Your task to perform on an android device: toggle show notifications on the lock screen Image 0: 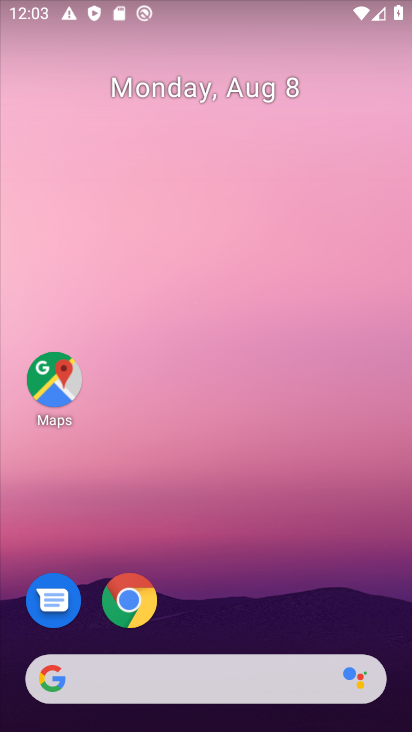
Step 0: drag from (185, 590) to (132, 155)
Your task to perform on an android device: toggle show notifications on the lock screen Image 1: 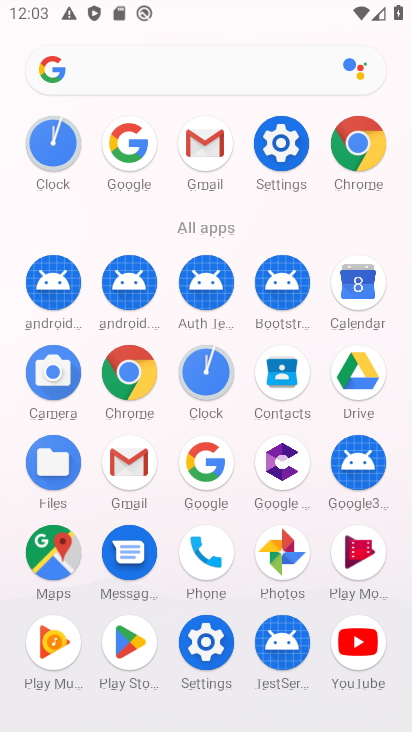
Step 1: click (264, 165)
Your task to perform on an android device: toggle show notifications on the lock screen Image 2: 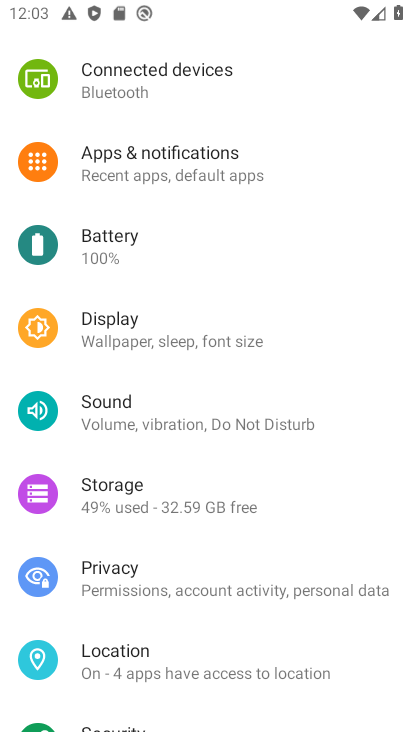
Step 2: click (232, 195)
Your task to perform on an android device: toggle show notifications on the lock screen Image 3: 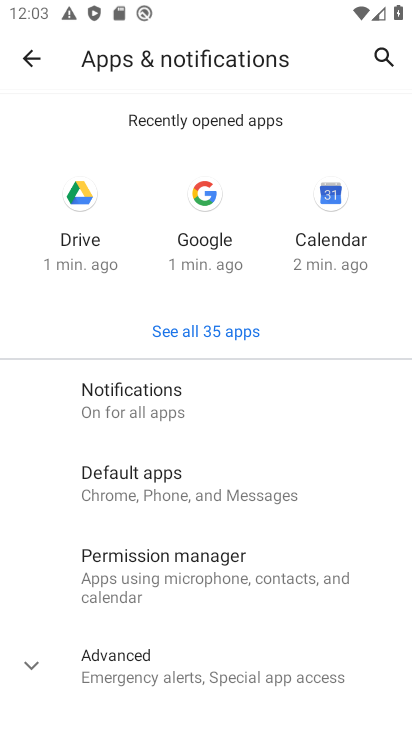
Step 3: click (194, 398)
Your task to perform on an android device: toggle show notifications on the lock screen Image 4: 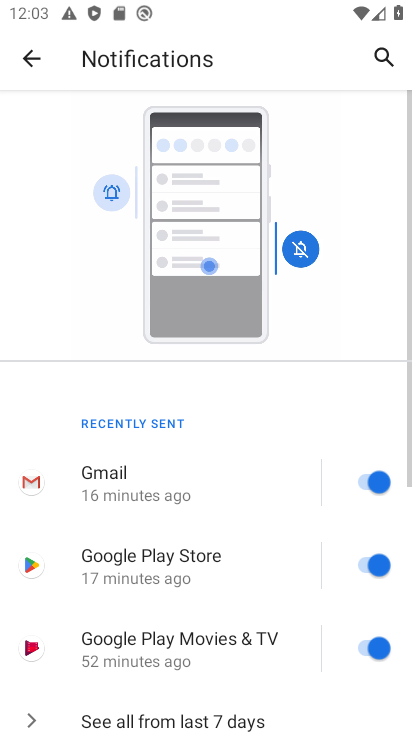
Step 4: drag from (286, 649) to (252, 180)
Your task to perform on an android device: toggle show notifications on the lock screen Image 5: 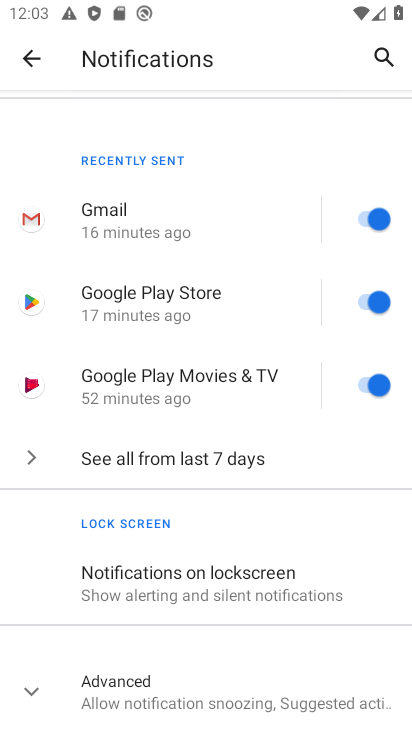
Step 5: click (269, 564)
Your task to perform on an android device: toggle show notifications on the lock screen Image 6: 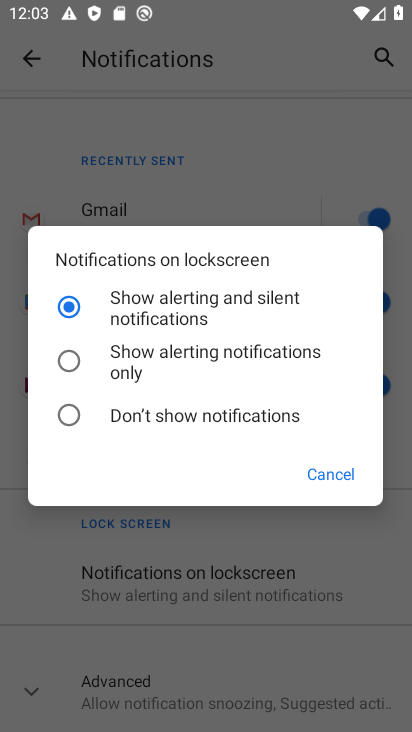
Step 6: click (231, 406)
Your task to perform on an android device: toggle show notifications on the lock screen Image 7: 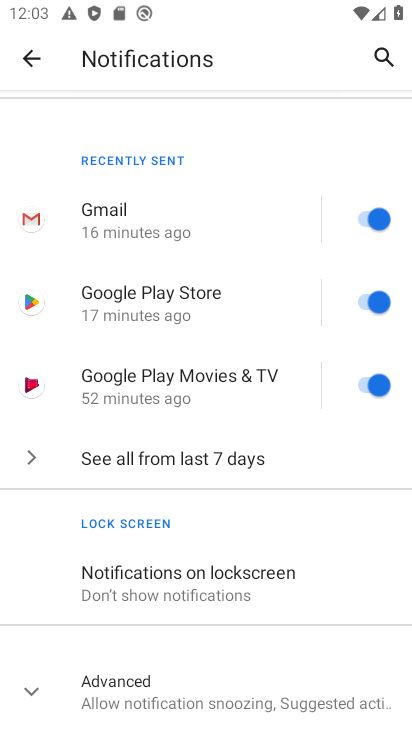
Step 7: task complete